Your task to perform on an android device: change notifications settings Image 0: 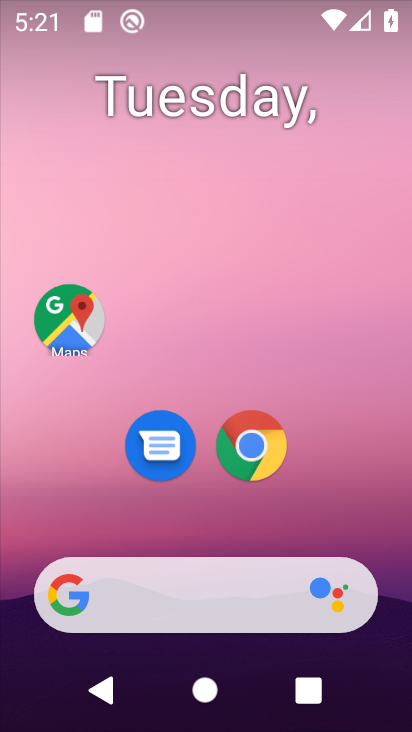
Step 0: drag from (154, 110) to (122, 10)
Your task to perform on an android device: change notifications settings Image 1: 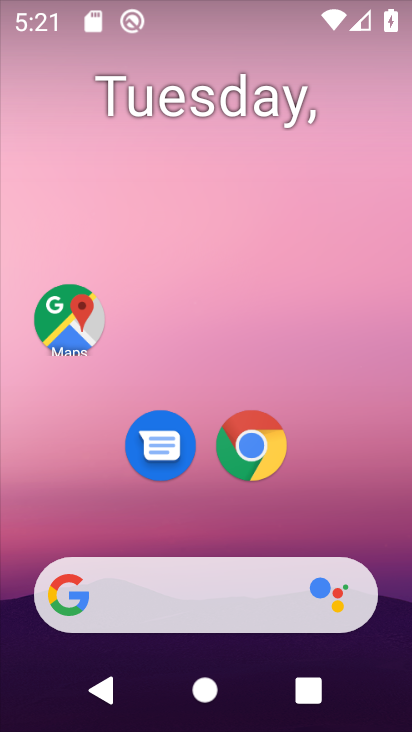
Step 1: drag from (208, 276) to (120, 2)
Your task to perform on an android device: change notifications settings Image 2: 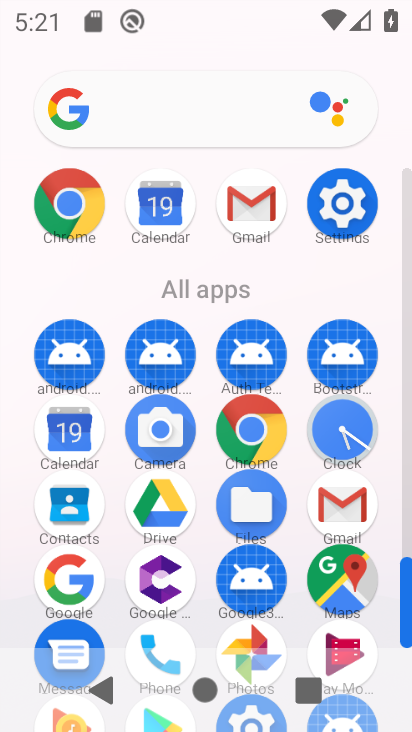
Step 2: click (343, 212)
Your task to perform on an android device: change notifications settings Image 3: 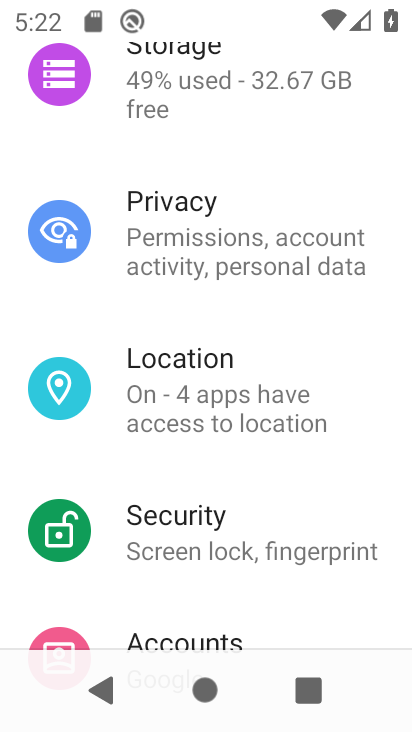
Step 3: drag from (291, 247) to (244, 593)
Your task to perform on an android device: change notifications settings Image 4: 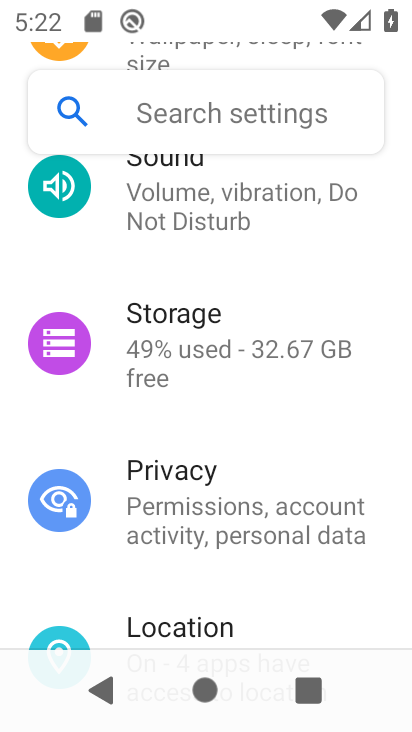
Step 4: drag from (181, 251) to (205, 528)
Your task to perform on an android device: change notifications settings Image 5: 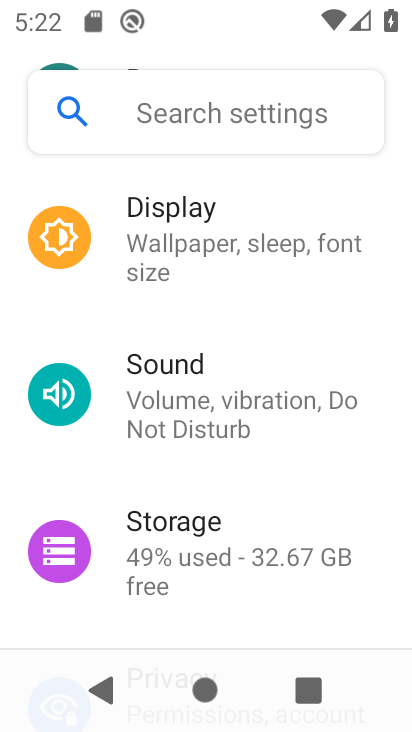
Step 5: drag from (180, 215) to (196, 528)
Your task to perform on an android device: change notifications settings Image 6: 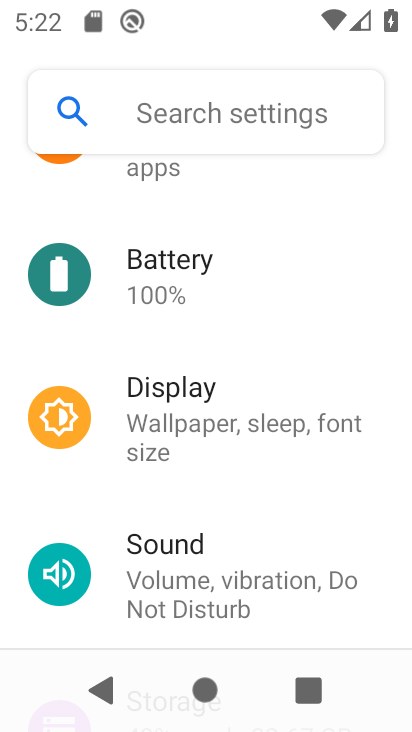
Step 6: drag from (193, 249) to (210, 474)
Your task to perform on an android device: change notifications settings Image 7: 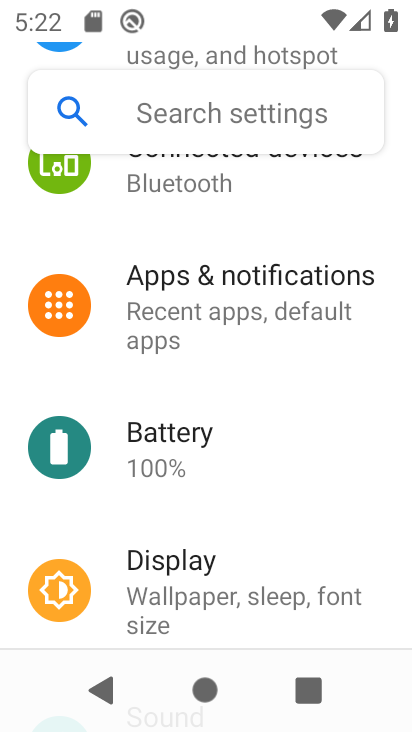
Step 7: drag from (246, 393) to (206, 665)
Your task to perform on an android device: change notifications settings Image 8: 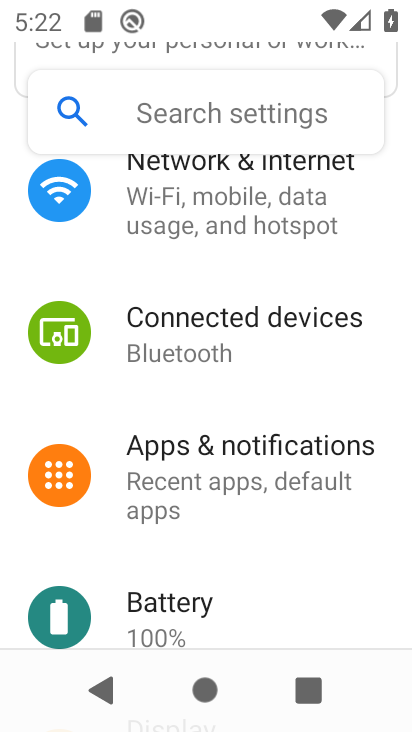
Step 8: drag from (186, 339) to (130, 672)
Your task to perform on an android device: change notifications settings Image 9: 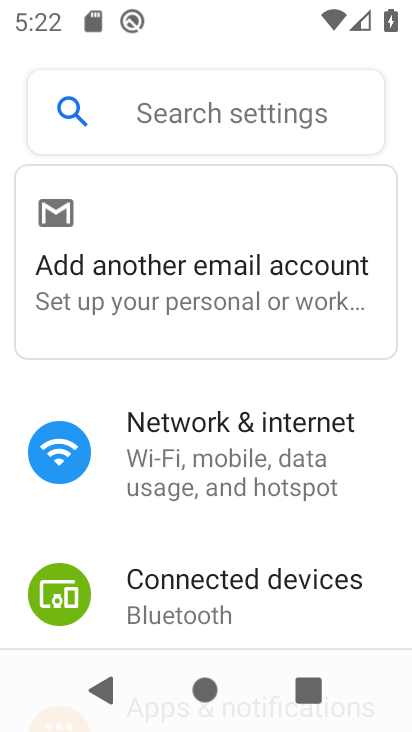
Step 9: drag from (181, 602) to (131, 205)
Your task to perform on an android device: change notifications settings Image 10: 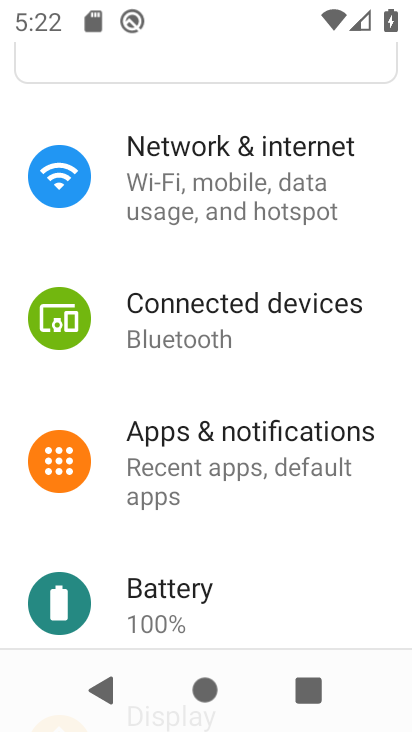
Step 10: click (185, 451)
Your task to perform on an android device: change notifications settings Image 11: 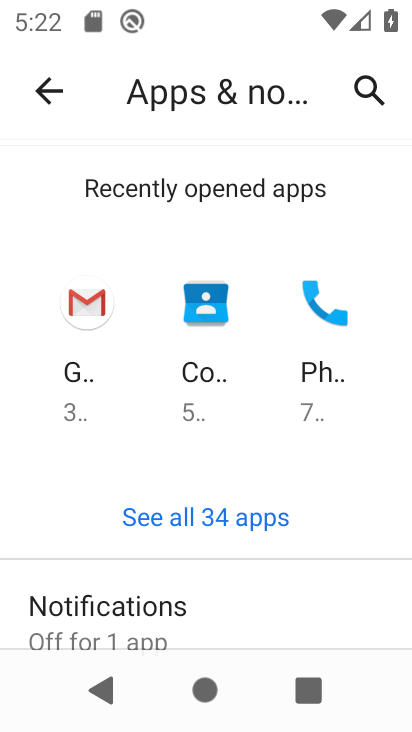
Step 11: click (186, 583)
Your task to perform on an android device: change notifications settings Image 12: 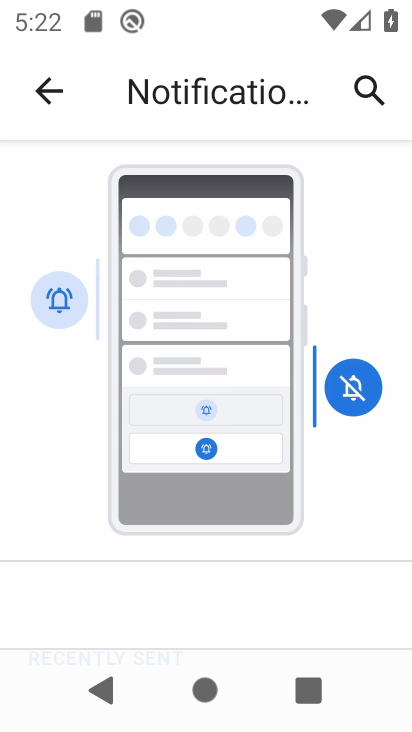
Step 12: drag from (159, 432) to (50, 208)
Your task to perform on an android device: change notifications settings Image 13: 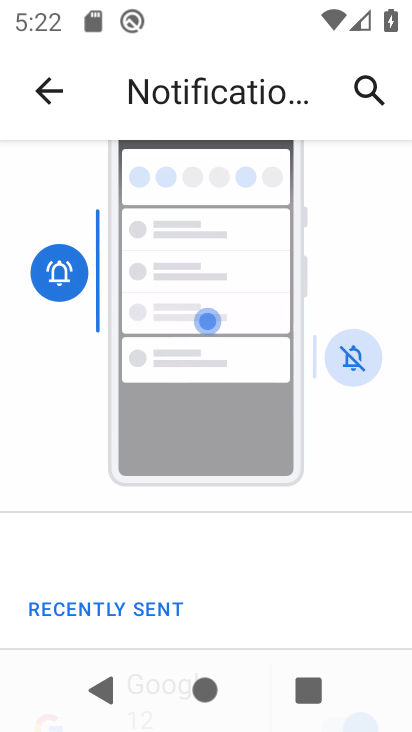
Step 13: drag from (146, 582) to (48, 40)
Your task to perform on an android device: change notifications settings Image 14: 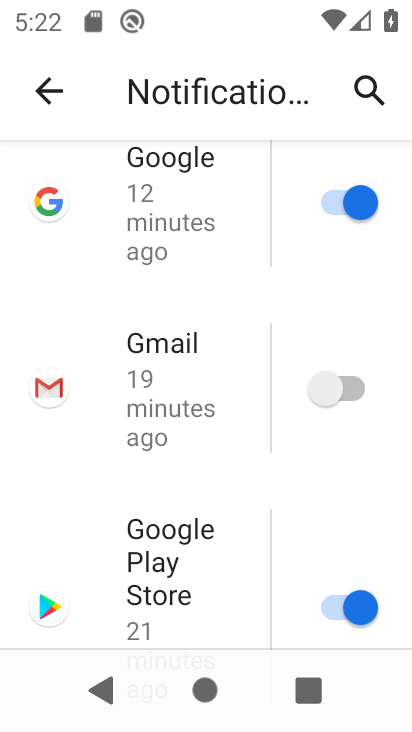
Step 14: click (348, 391)
Your task to perform on an android device: change notifications settings Image 15: 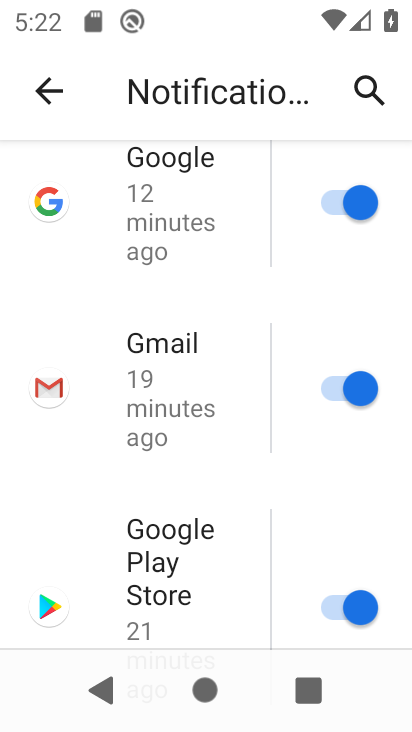
Step 15: task complete